Your task to perform on an android device: Show me productivity apps on the Play Store Image 0: 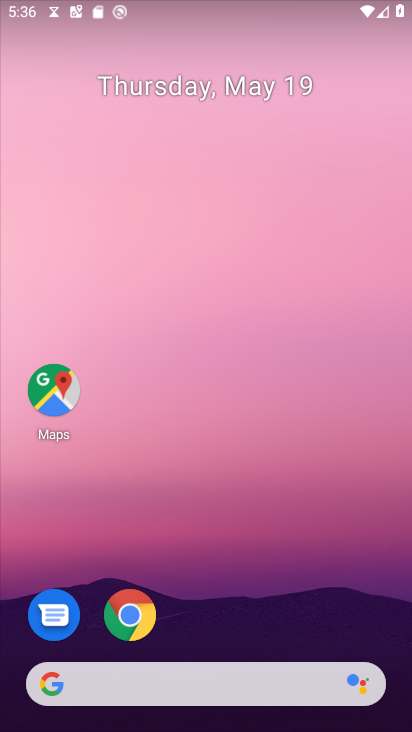
Step 0: drag from (252, 631) to (286, 5)
Your task to perform on an android device: Show me productivity apps on the Play Store Image 1: 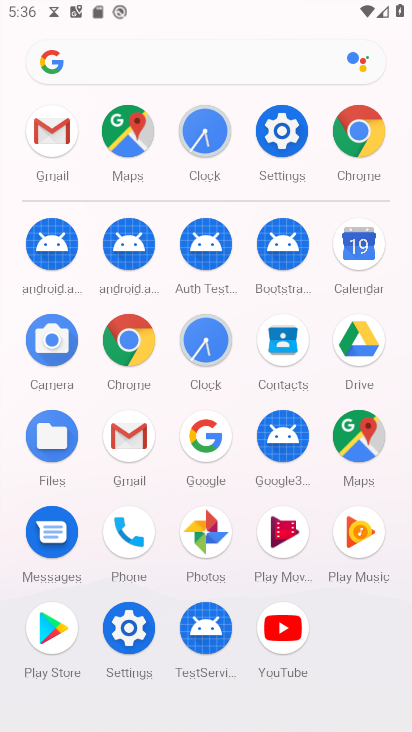
Step 1: click (63, 622)
Your task to perform on an android device: Show me productivity apps on the Play Store Image 2: 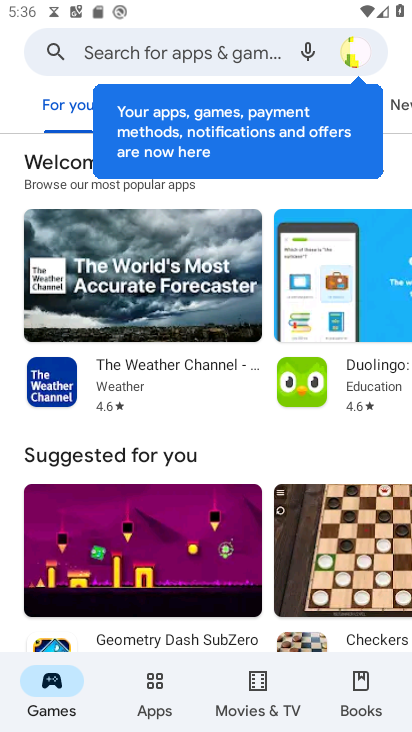
Step 2: click (154, 683)
Your task to perform on an android device: Show me productivity apps on the Play Store Image 3: 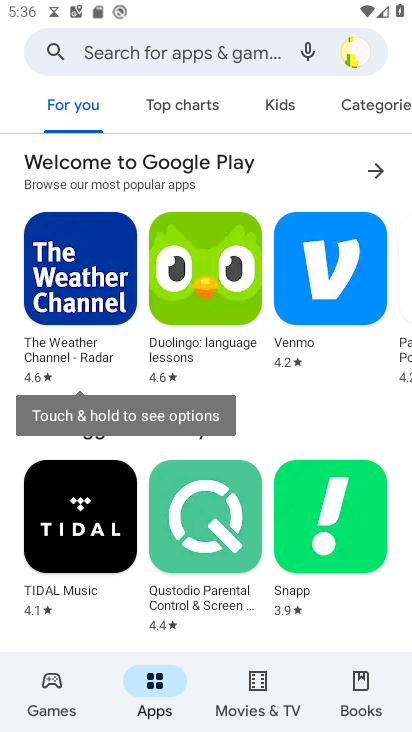
Step 3: drag from (219, 605) to (204, 111)
Your task to perform on an android device: Show me productivity apps on the Play Store Image 4: 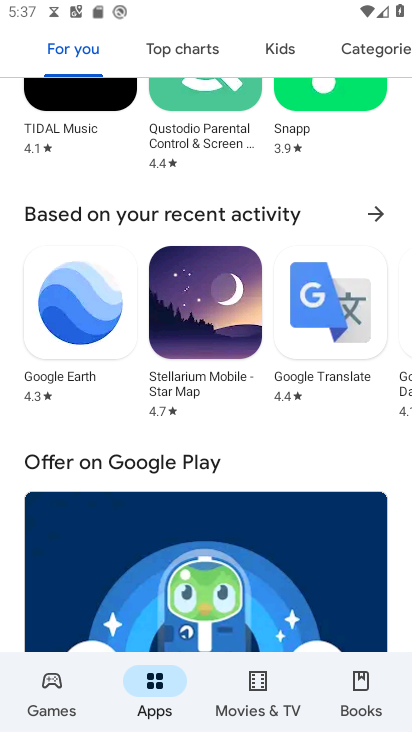
Step 4: drag from (228, 604) to (206, 104)
Your task to perform on an android device: Show me productivity apps on the Play Store Image 5: 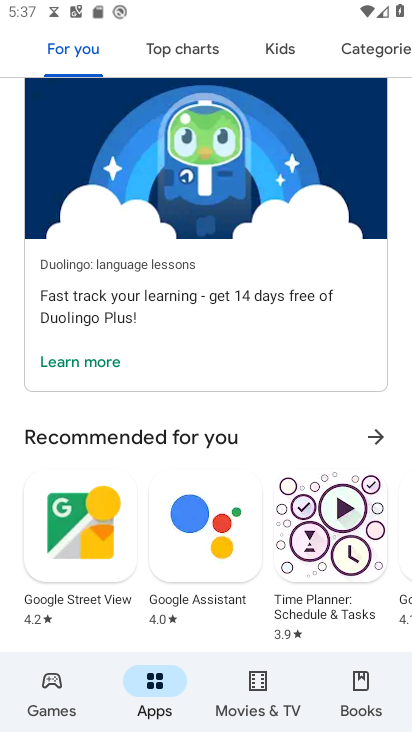
Step 5: drag from (250, 575) to (202, 186)
Your task to perform on an android device: Show me productivity apps on the Play Store Image 6: 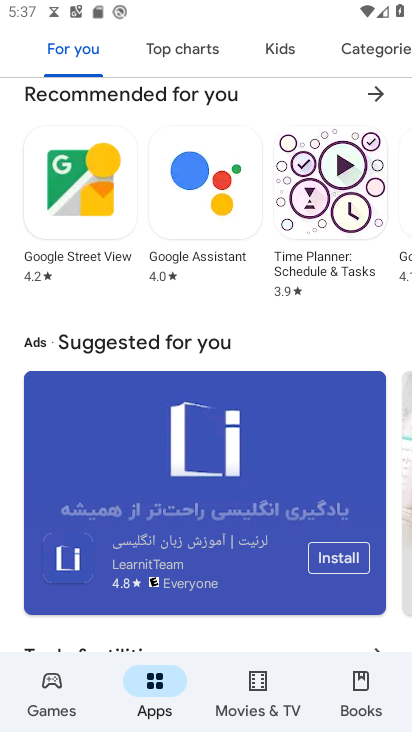
Step 6: drag from (229, 582) to (205, 118)
Your task to perform on an android device: Show me productivity apps on the Play Store Image 7: 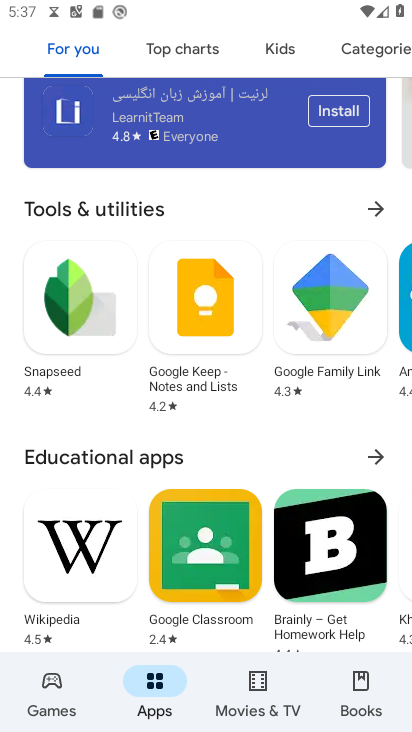
Step 7: drag from (279, 649) to (228, 266)
Your task to perform on an android device: Show me productivity apps on the Play Store Image 8: 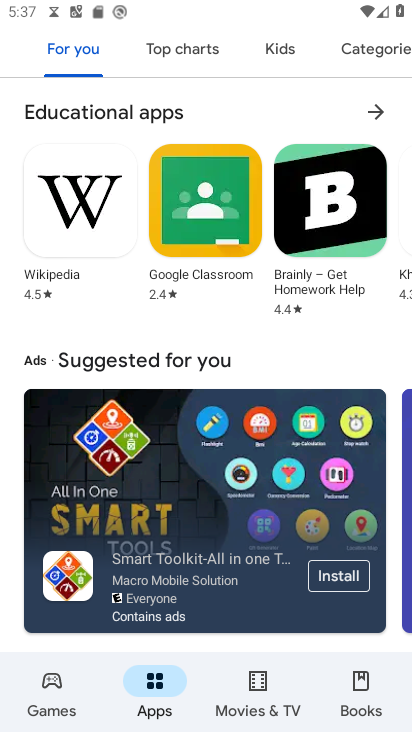
Step 8: drag from (210, 579) to (194, 218)
Your task to perform on an android device: Show me productivity apps on the Play Store Image 9: 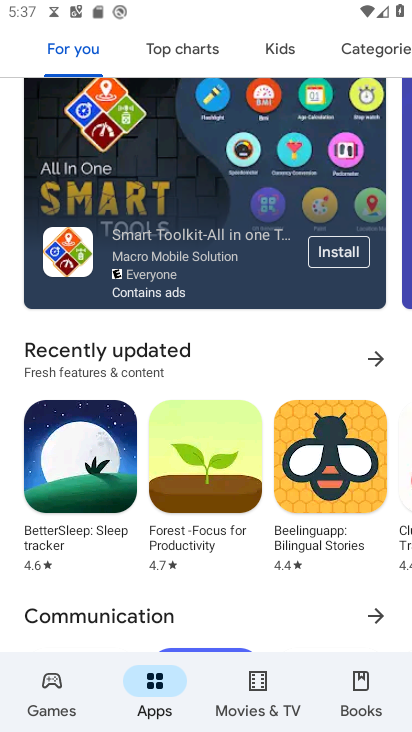
Step 9: drag from (226, 609) to (230, 204)
Your task to perform on an android device: Show me productivity apps on the Play Store Image 10: 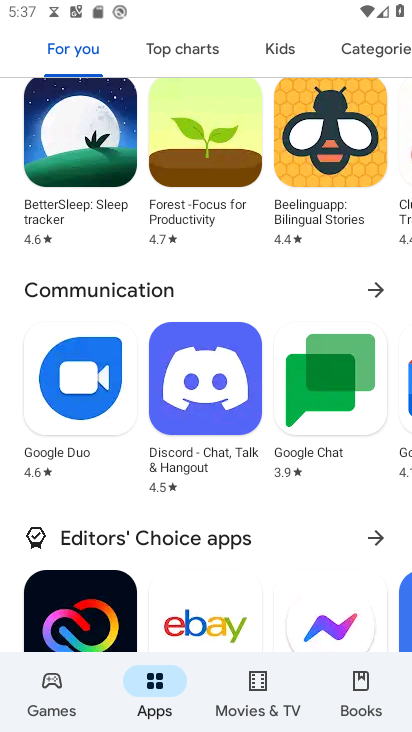
Step 10: drag from (237, 595) to (216, 329)
Your task to perform on an android device: Show me productivity apps on the Play Store Image 11: 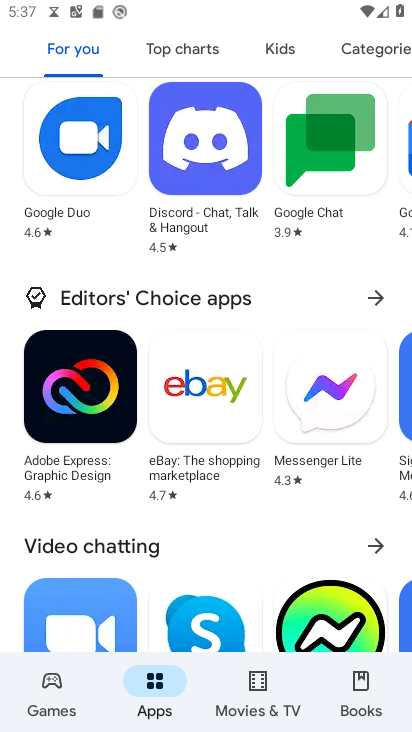
Step 11: drag from (137, 594) to (183, 65)
Your task to perform on an android device: Show me productivity apps on the Play Store Image 12: 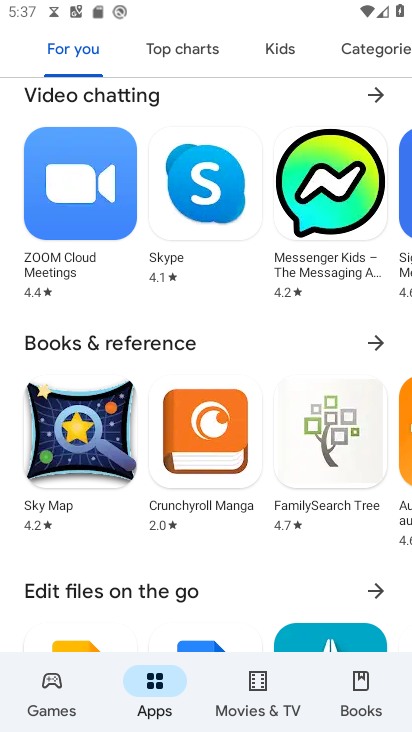
Step 12: drag from (188, 544) to (184, 38)
Your task to perform on an android device: Show me productivity apps on the Play Store Image 13: 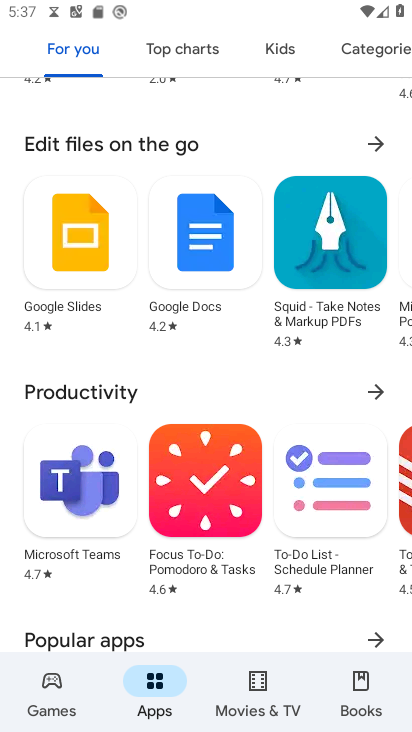
Step 13: click (374, 387)
Your task to perform on an android device: Show me productivity apps on the Play Store Image 14: 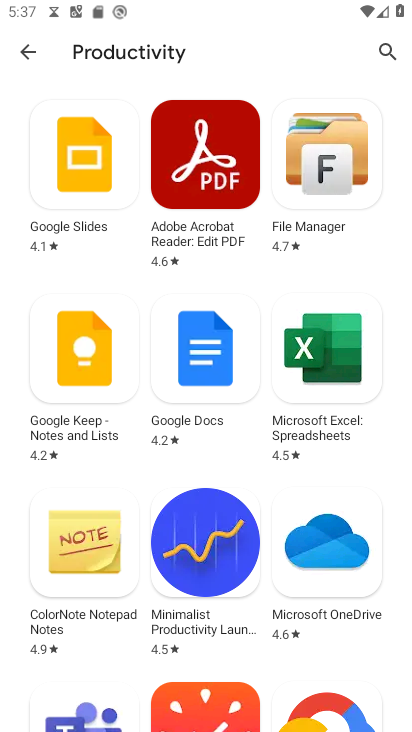
Step 14: task complete